Your task to perform on an android device: Open calendar and show me the third week of next month Image 0: 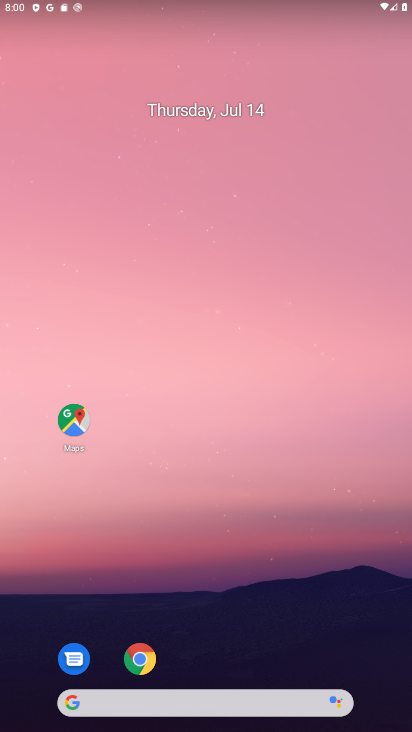
Step 0: drag from (156, 629) to (199, 0)
Your task to perform on an android device: Open calendar and show me the third week of next month Image 1: 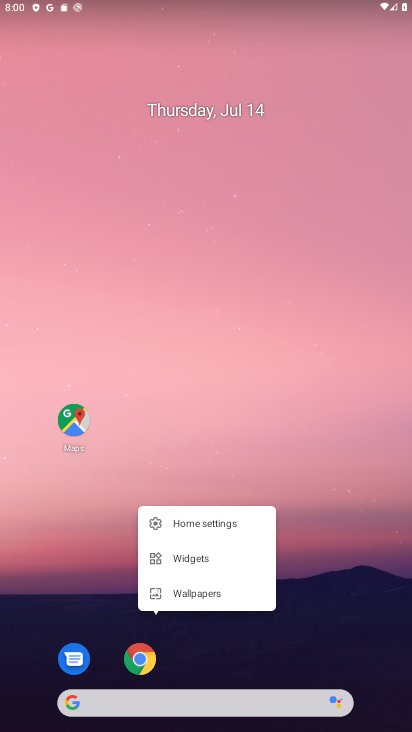
Step 1: click (303, 600)
Your task to perform on an android device: Open calendar and show me the third week of next month Image 2: 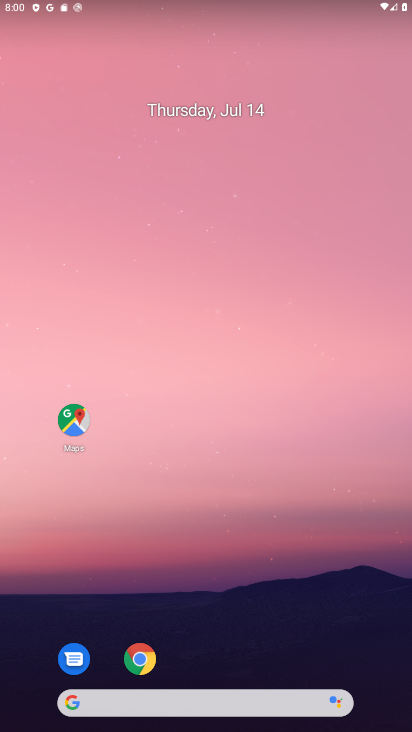
Step 2: drag from (177, 660) to (289, 28)
Your task to perform on an android device: Open calendar and show me the third week of next month Image 3: 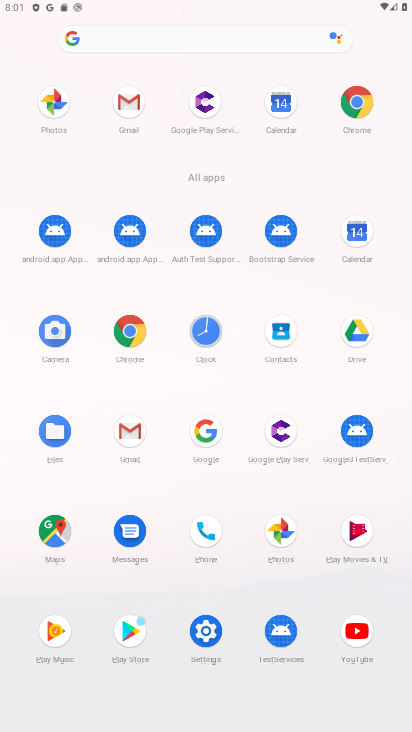
Step 3: click (366, 242)
Your task to perform on an android device: Open calendar and show me the third week of next month Image 4: 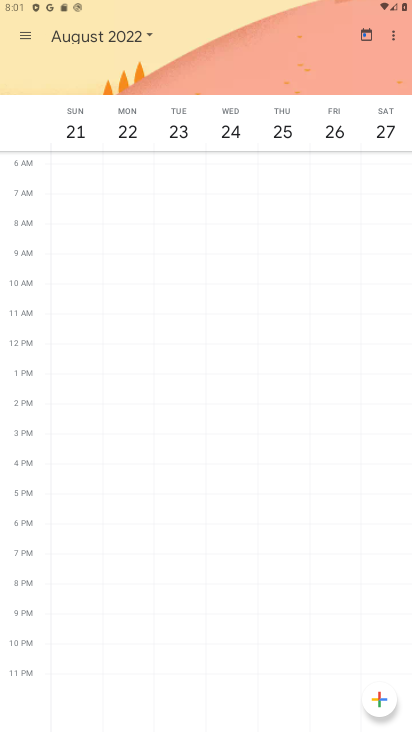
Step 4: task complete